Your task to perform on an android device: Go to calendar. Show me events next week Image 0: 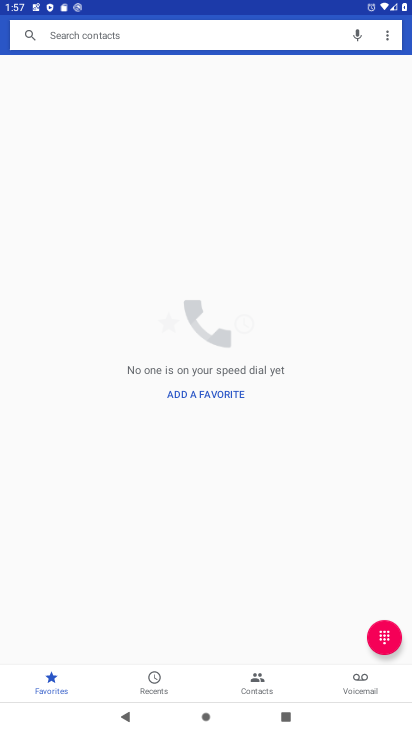
Step 0: press home button
Your task to perform on an android device: Go to calendar. Show me events next week Image 1: 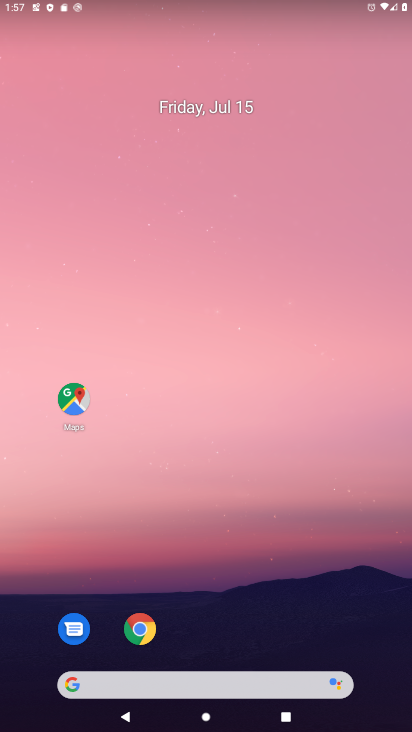
Step 1: drag from (315, 491) to (295, 67)
Your task to perform on an android device: Go to calendar. Show me events next week Image 2: 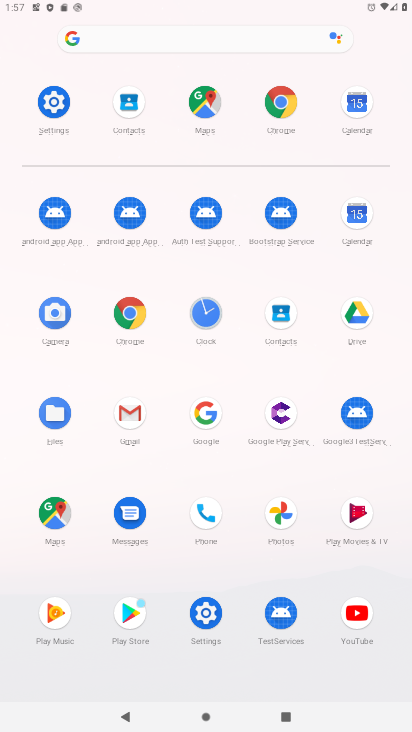
Step 2: click (358, 214)
Your task to perform on an android device: Go to calendar. Show me events next week Image 3: 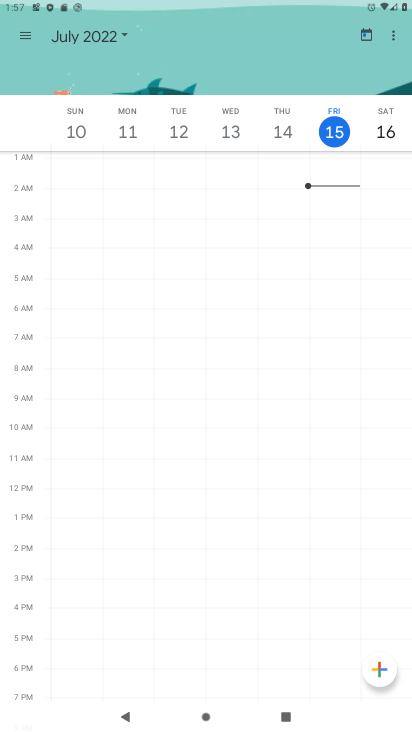
Step 3: task complete